Your task to perform on an android device: Open Google Chrome and open the bookmarks view Image 0: 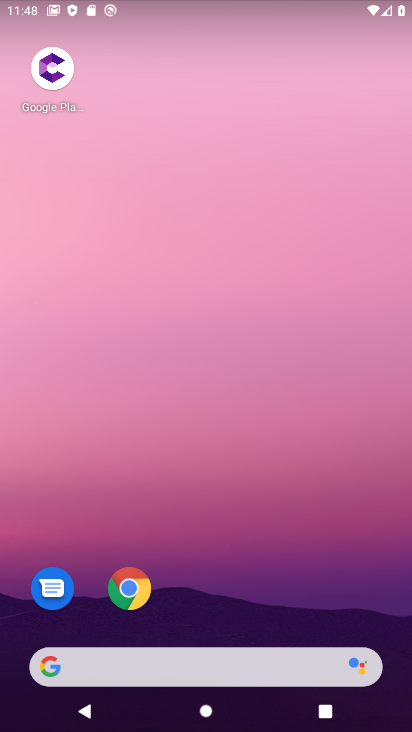
Step 0: click (137, 588)
Your task to perform on an android device: Open Google Chrome and open the bookmarks view Image 1: 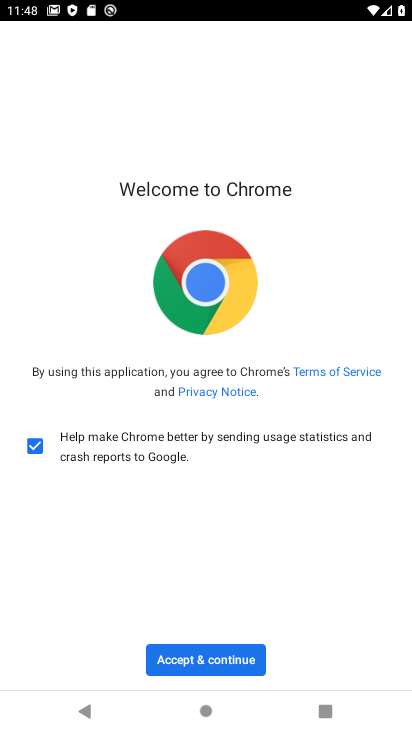
Step 1: click (162, 658)
Your task to perform on an android device: Open Google Chrome and open the bookmarks view Image 2: 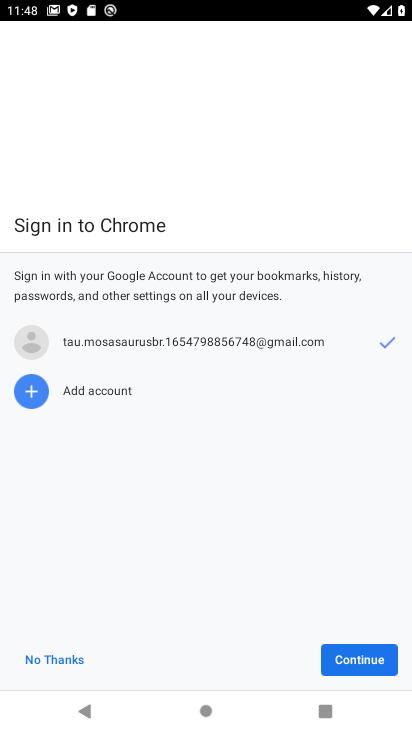
Step 2: click (335, 660)
Your task to perform on an android device: Open Google Chrome and open the bookmarks view Image 3: 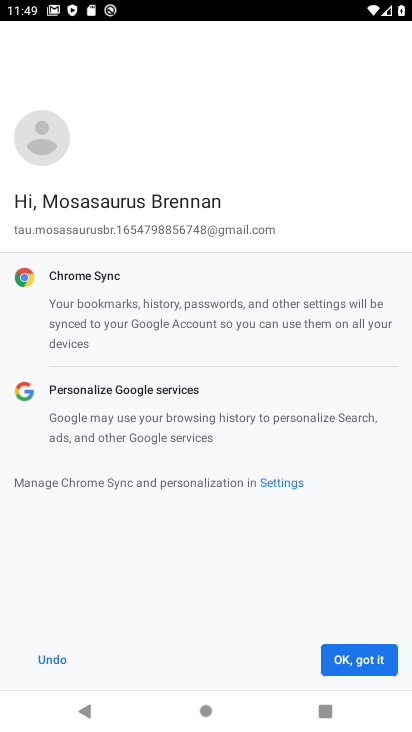
Step 3: click (335, 664)
Your task to perform on an android device: Open Google Chrome and open the bookmarks view Image 4: 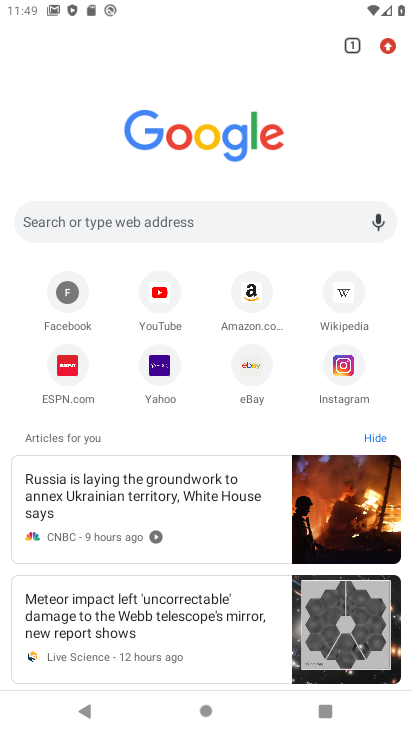
Step 4: click (386, 44)
Your task to perform on an android device: Open Google Chrome and open the bookmarks view Image 5: 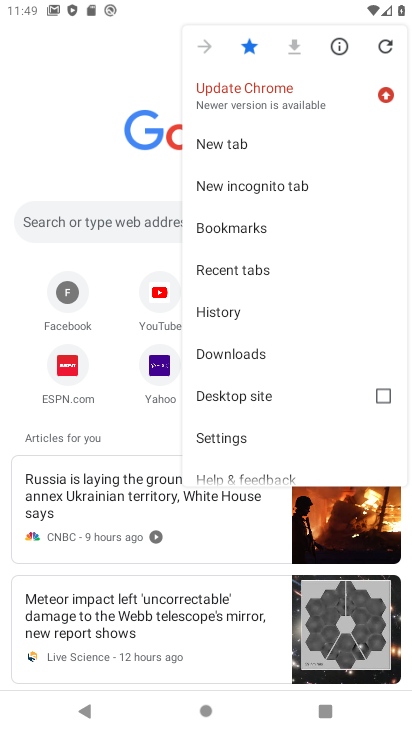
Step 5: click (242, 225)
Your task to perform on an android device: Open Google Chrome and open the bookmarks view Image 6: 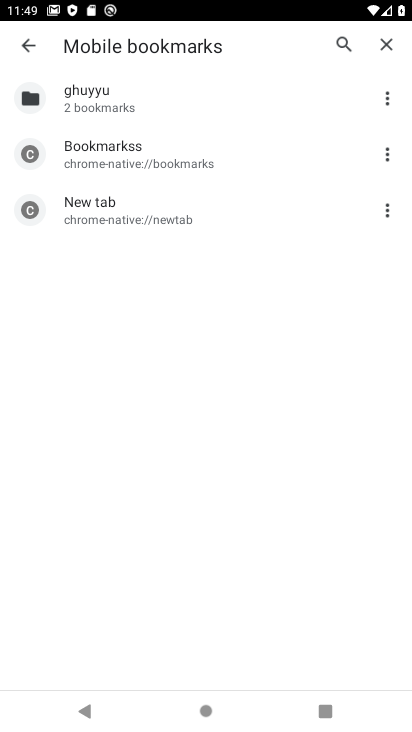
Step 6: task complete